Your task to perform on an android device: turn smart compose on in the gmail app Image 0: 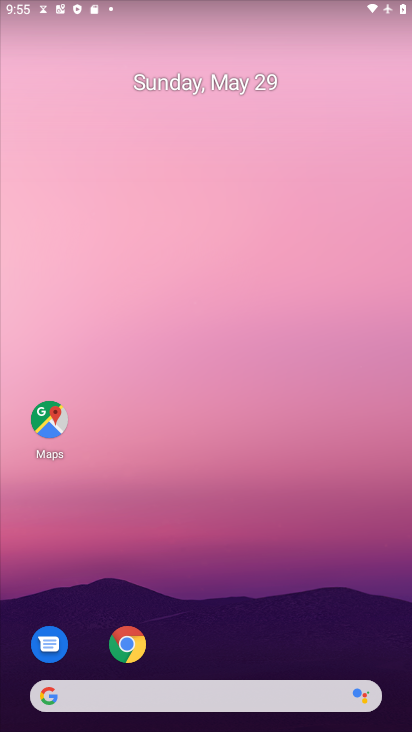
Step 0: drag from (262, 598) to (257, 275)
Your task to perform on an android device: turn smart compose on in the gmail app Image 1: 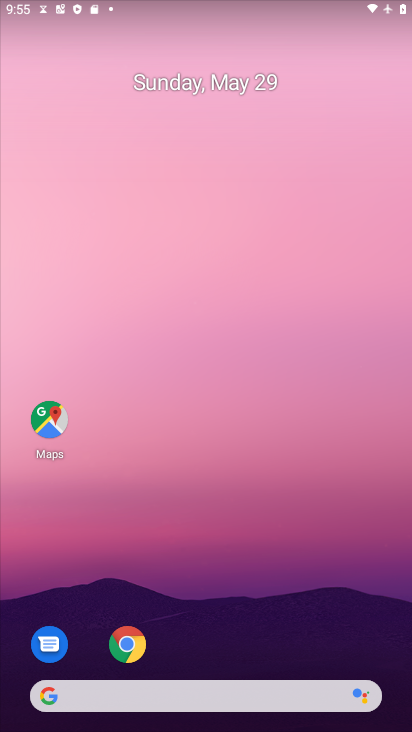
Step 1: drag from (270, 635) to (245, 316)
Your task to perform on an android device: turn smart compose on in the gmail app Image 2: 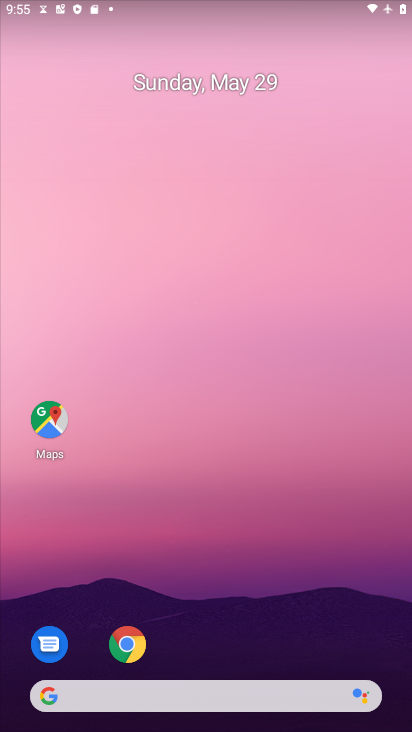
Step 2: drag from (253, 607) to (235, 182)
Your task to perform on an android device: turn smart compose on in the gmail app Image 3: 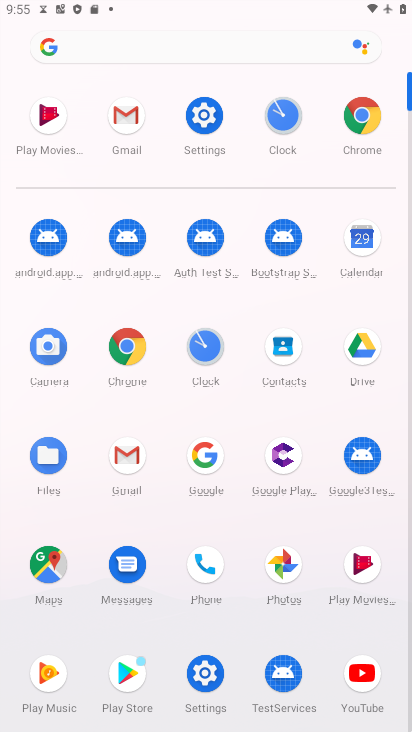
Step 3: click (126, 460)
Your task to perform on an android device: turn smart compose on in the gmail app Image 4: 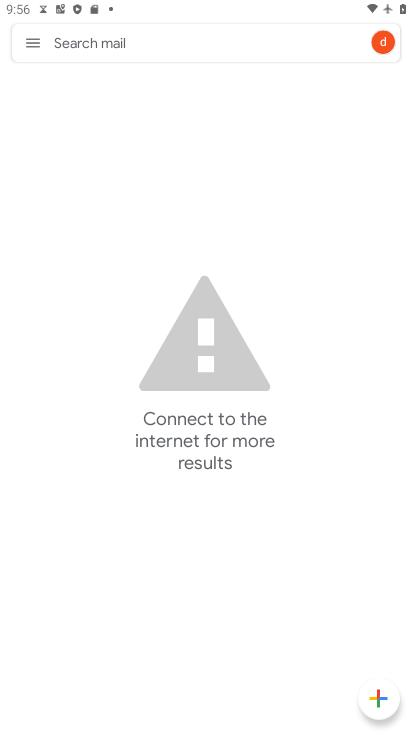
Step 4: click (28, 39)
Your task to perform on an android device: turn smart compose on in the gmail app Image 5: 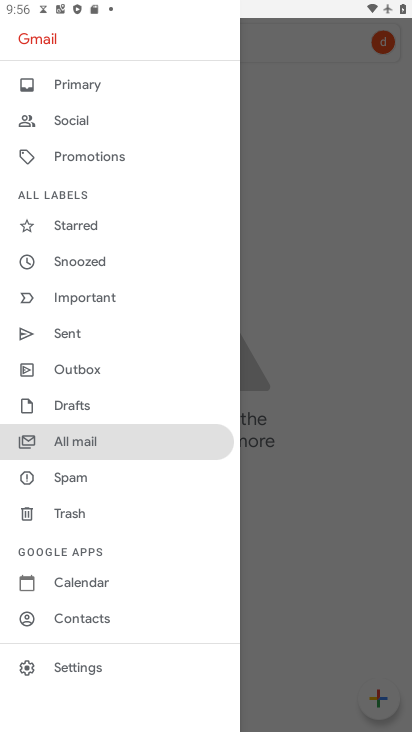
Step 5: click (84, 665)
Your task to perform on an android device: turn smart compose on in the gmail app Image 6: 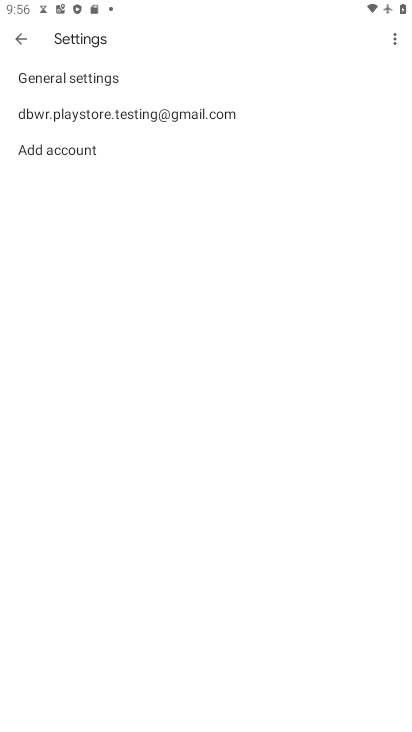
Step 6: click (122, 109)
Your task to perform on an android device: turn smart compose on in the gmail app Image 7: 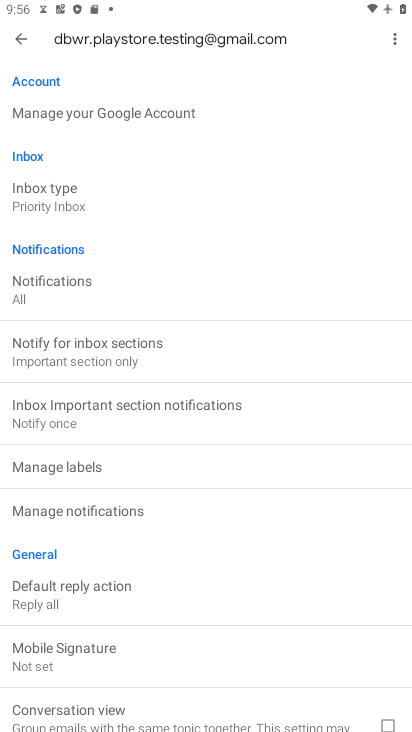
Step 7: task complete